Your task to perform on an android device: turn off notifications settings in the gmail app Image 0: 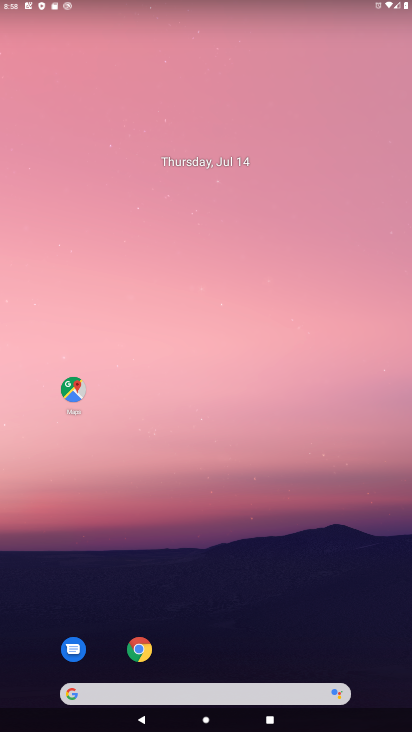
Step 0: drag from (93, 723) to (295, 34)
Your task to perform on an android device: turn off notifications settings in the gmail app Image 1: 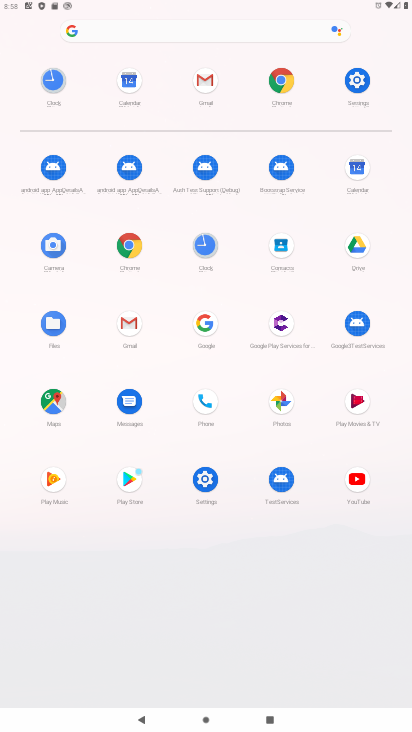
Step 1: click (131, 321)
Your task to perform on an android device: turn off notifications settings in the gmail app Image 2: 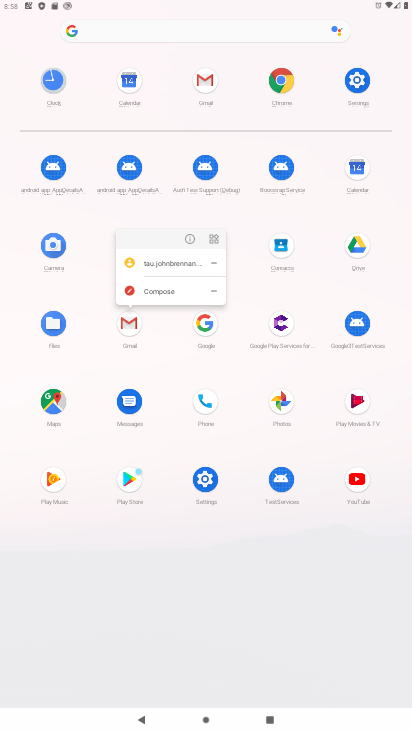
Step 2: click (192, 236)
Your task to perform on an android device: turn off notifications settings in the gmail app Image 3: 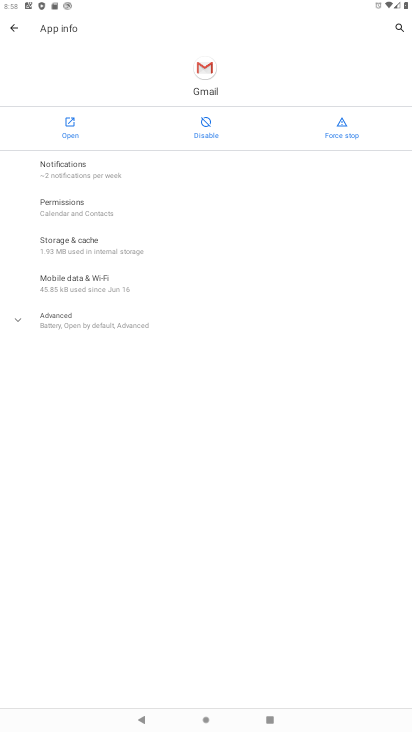
Step 3: click (145, 175)
Your task to perform on an android device: turn off notifications settings in the gmail app Image 4: 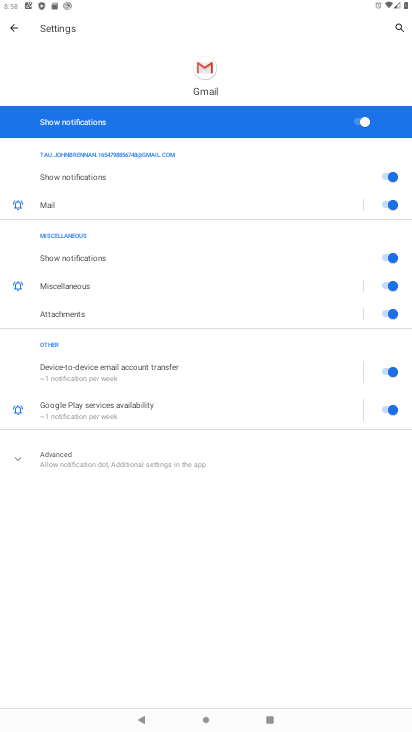
Step 4: click (358, 118)
Your task to perform on an android device: turn off notifications settings in the gmail app Image 5: 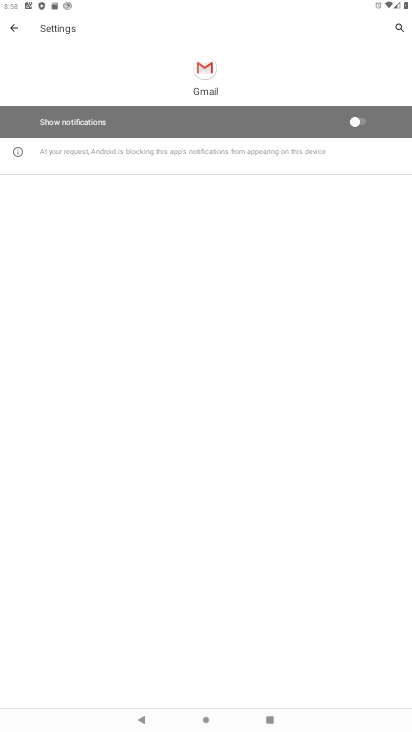
Step 5: task complete